Your task to perform on an android device: Do I have any events today? Image 0: 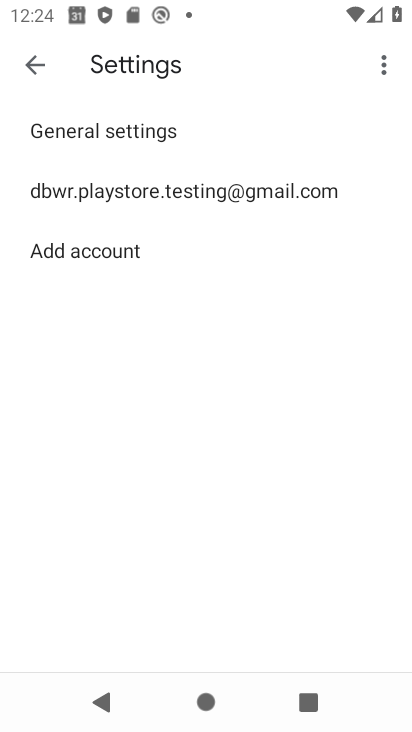
Step 0: press home button
Your task to perform on an android device: Do I have any events today? Image 1: 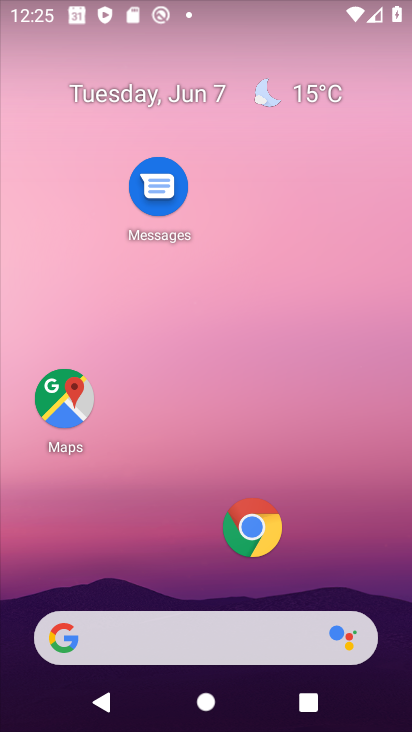
Step 1: drag from (226, 549) to (210, 154)
Your task to perform on an android device: Do I have any events today? Image 2: 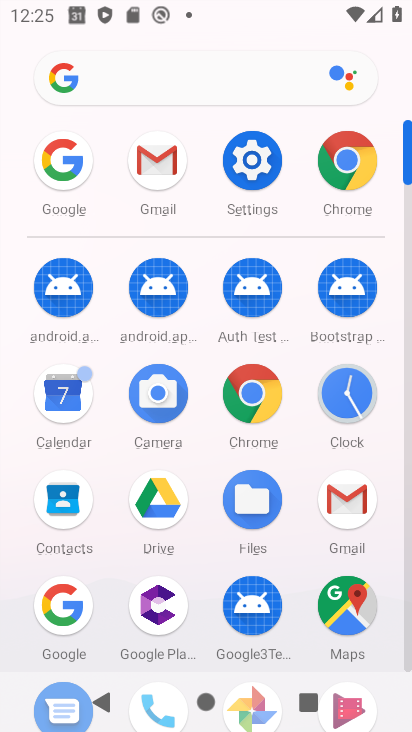
Step 2: click (63, 397)
Your task to perform on an android device: Do I have any events today? Image 3: 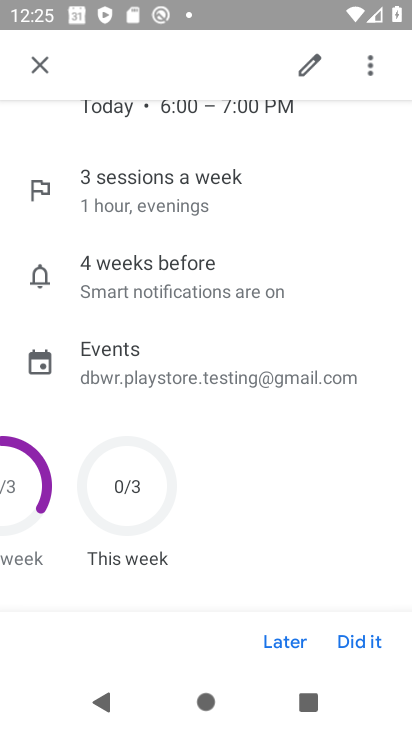
Step 3: click (52, 64)
Your task to perform on an android device: Do I have any events today? Image 4: 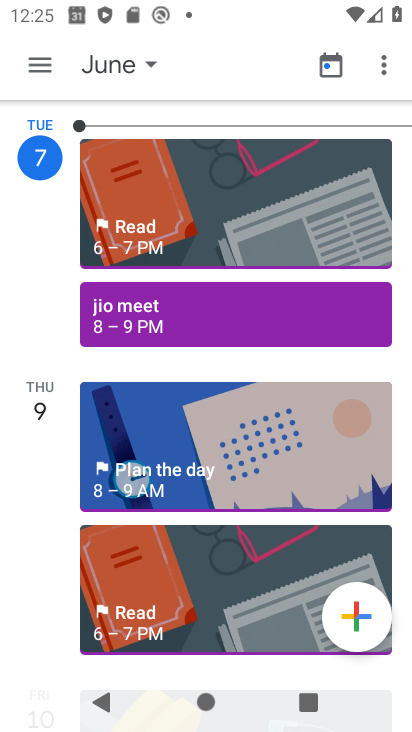
Step 4: drag from (142, 184) to (197, 484)
Your task to perform on an android device: Do I have any events today? Image 5: 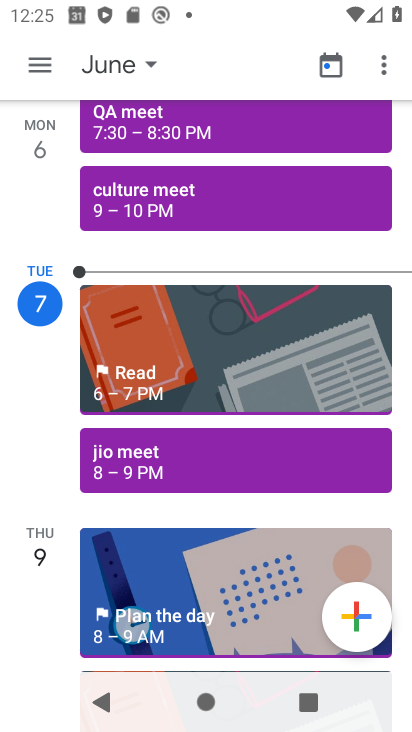
Step 5: click (171, 361)
Your task to perform on an android device: Do I have any events today? Image 6: 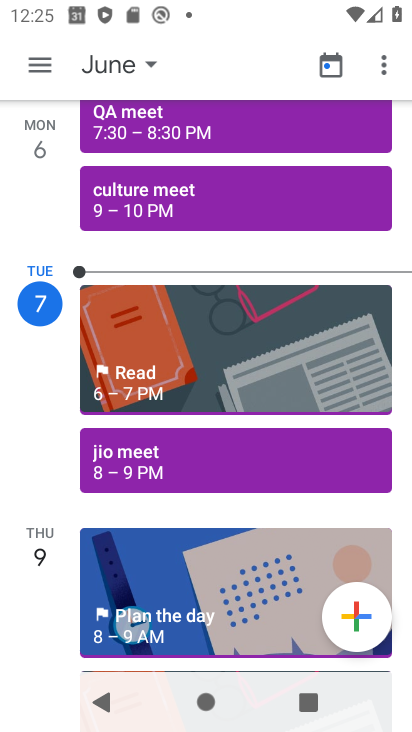
Step 6: click (161, 382)
Your task to perform on an android device: Do I have any events today? Image 7: 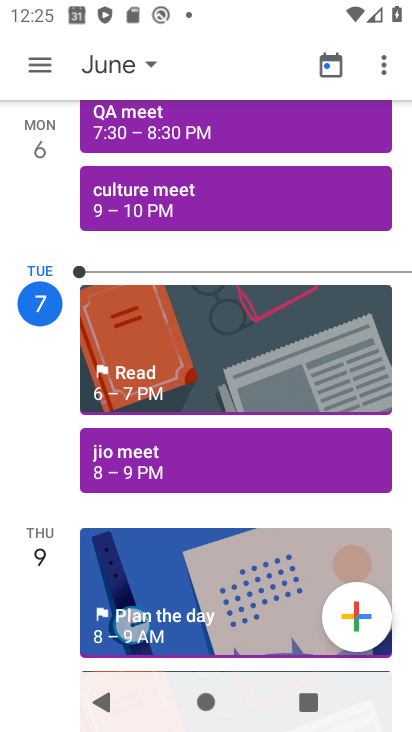
Step 7: click (122, 385)
Your task to perform on an android device: Do I have any events today? Image 8: 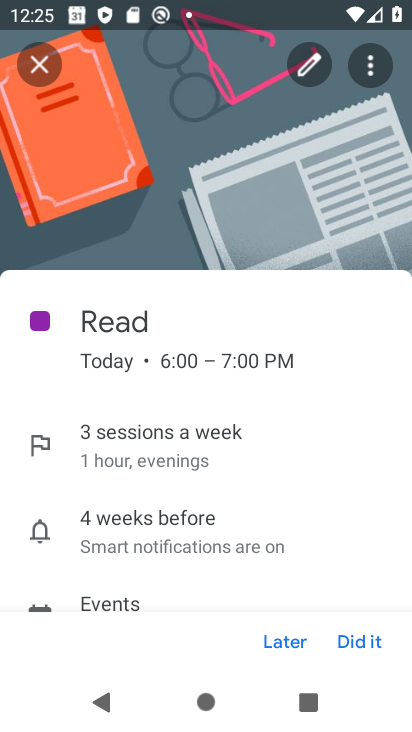
Step 8: task complete